Your task to perform on an android device: turn on notifications settings in the gmail app Image 0: 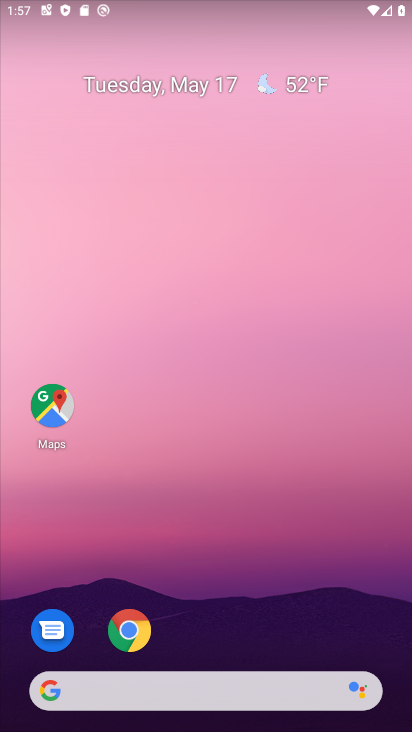
Step 0: drag from (195, 597) to (253, 174)
Your task to perform on an android device: turn on notifications settings in the gmail app Image 1: 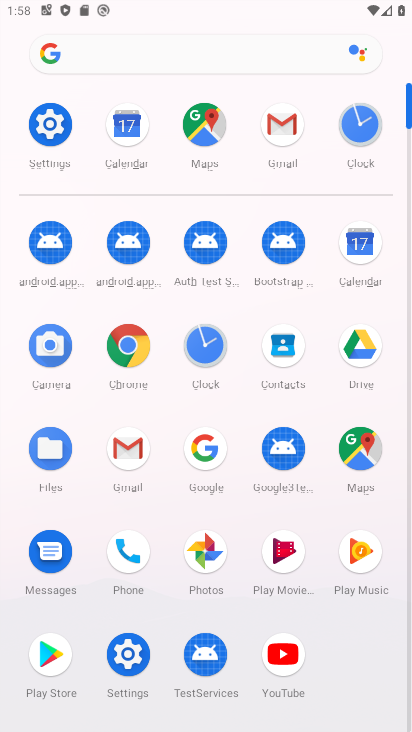
Step 1: click (284, 130)
Your task to perform on an android device: turn on notifications settings in the gmail app Image 2: 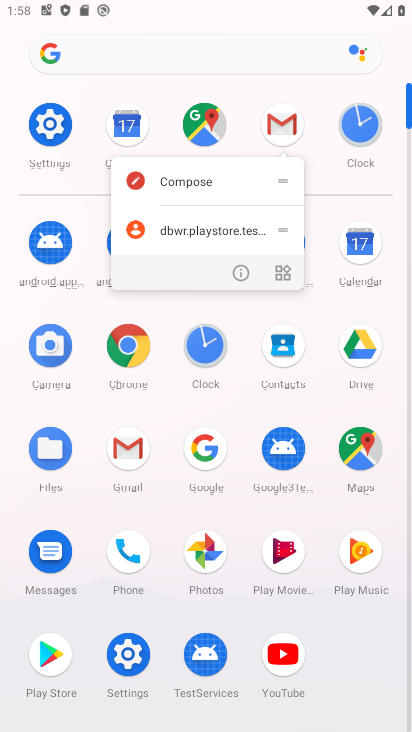
Step 2: click (238, 265)
Your task to perform on an android device: turn on notifications settings in the gmail app Image 3: 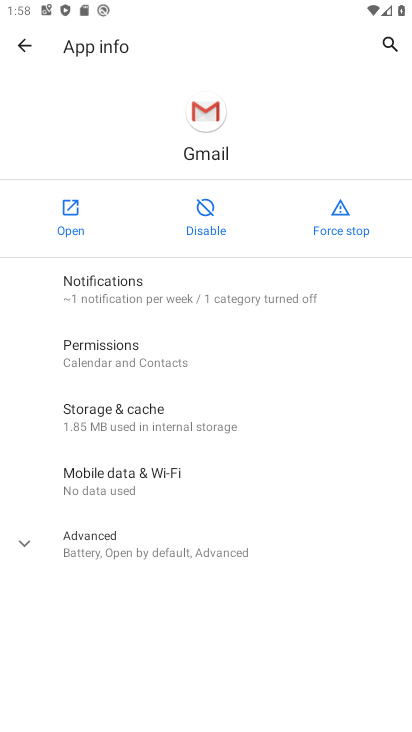
Step 3: click (136, 285)
Your task to perform on an android device: turn on notifications settings in the gmail app Image 4: 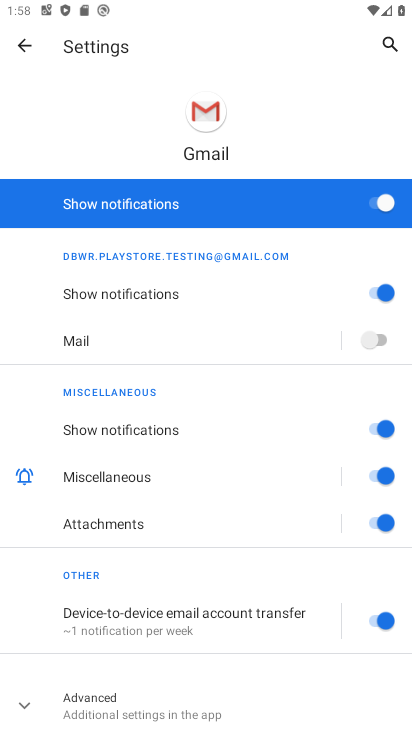
Step 4: task complete